Your task to perform on an android device: Search for sushi restaurants on Maps Image 0: 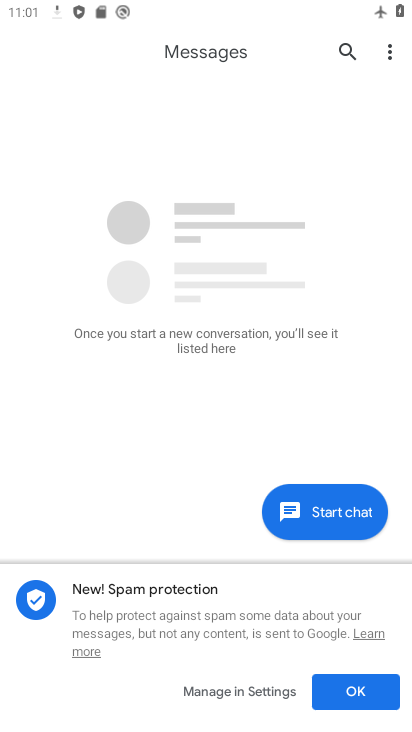
Step 0: press home button
Your task to perform on an android device: Search for sushi restaurants on Maps Image 1: 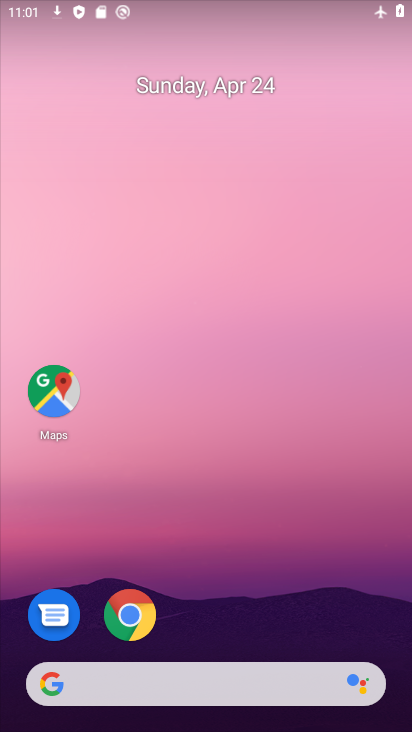
Step 1: click (61, 405)
Your task to perform on an android device: Search for sushi restaurants on Maps Image 2: 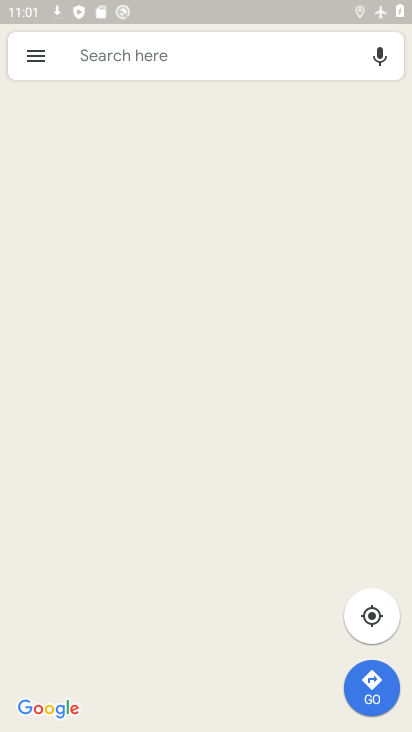
Step 2: click (292, 69)
Your task to perform on an android device: Search for sushi restaurants on Maps Image 3: 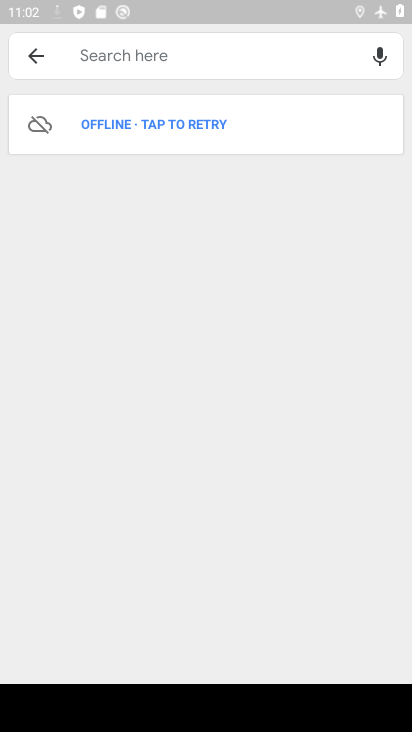
Step 3: type "sushi restaurent"
Your task to perform on an android device: Search for sushi restaurants on Maps Image 4: 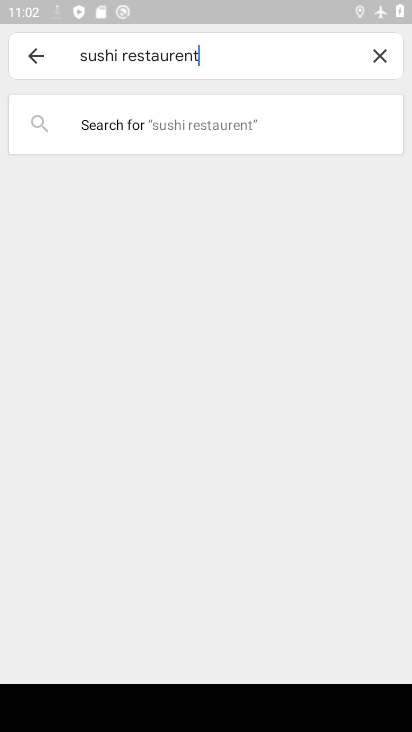
Step 4: task complete